Your task to perform on an android device: change the clock style Image 0: 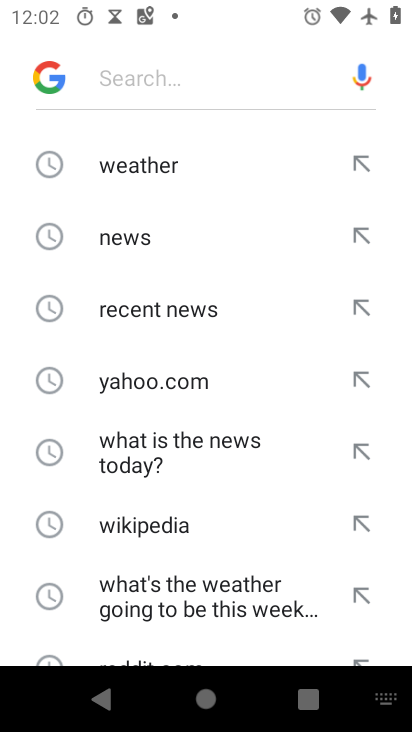
Step 0: press back button
Your task to perform on an android device: change the clock style Image 1: 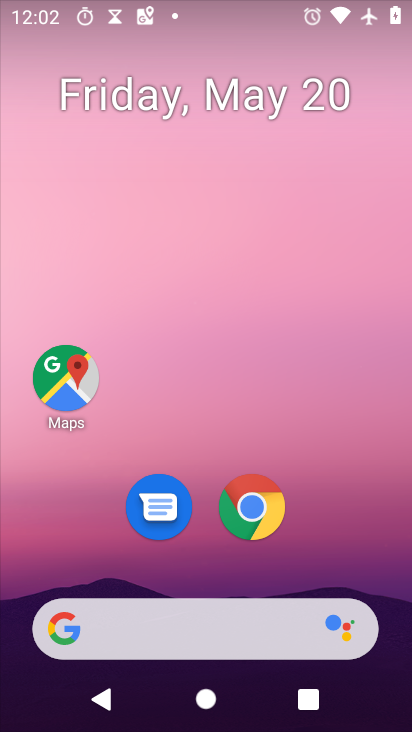
Step 1: drag from (342, 535) to (313, 4)
Your task to perform on an android device: change the clock style Image 2: 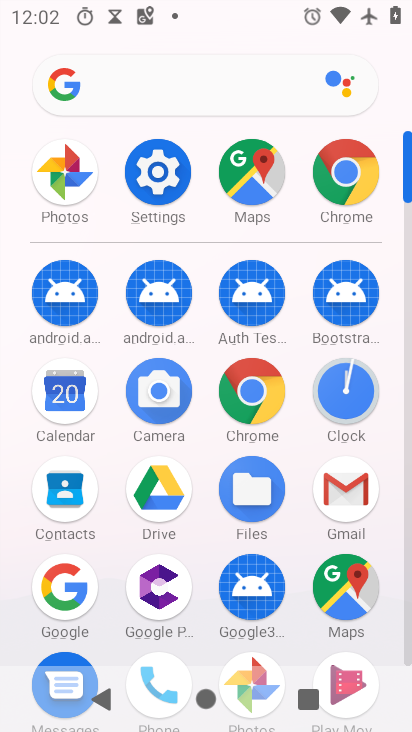
Step 2: click (345, 383)
Your task to perform on an android device: change the clock style Image 3: 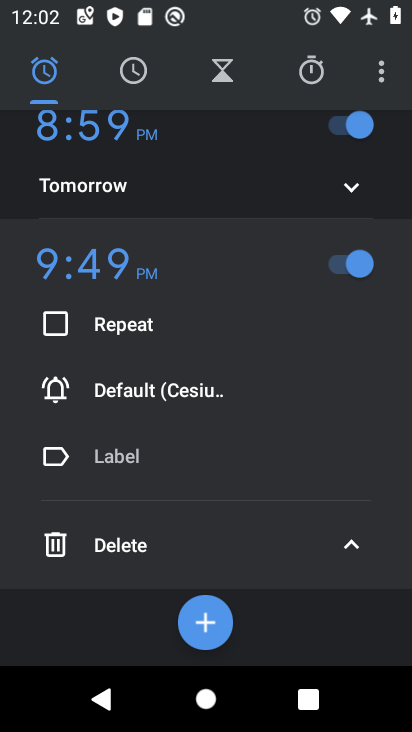
Step 3: drag from (379, 70) to (301, 131)
Your task to perform on an android device: change the clock style Image 4: 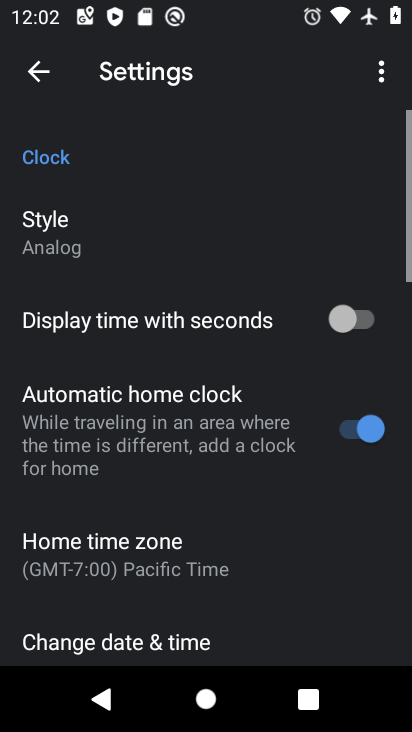
Step 4: click (116, 233)
Your task to perform on an android device: change the clock style Image 5: 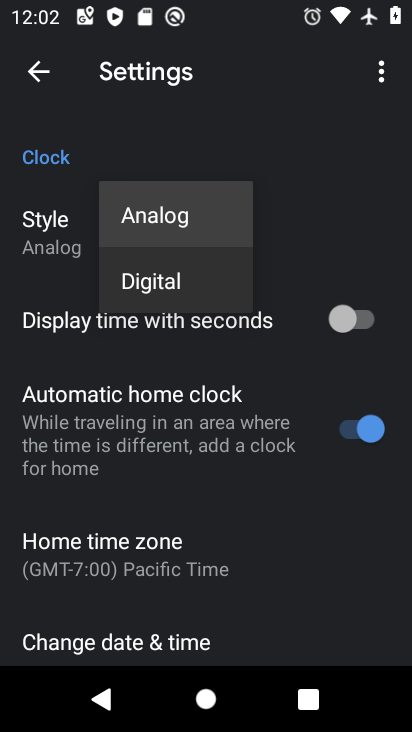
Step 5: click (141, 281)
Your task to perform on an android device: change the clock style Image 6: 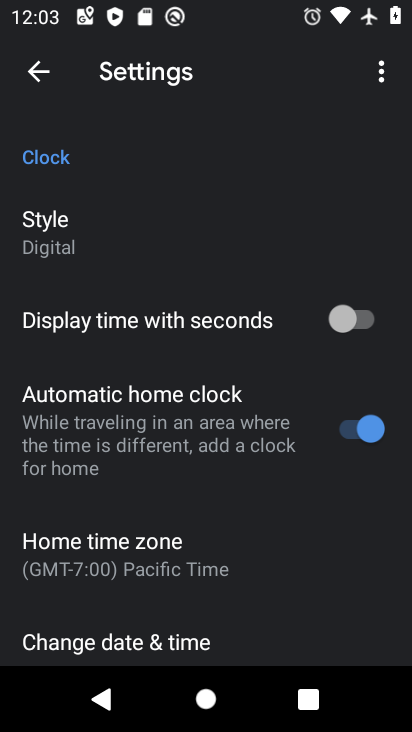
Step 6: task complete